Your task to perform on an android device: toggle show notifications on the lock screen Image 0: 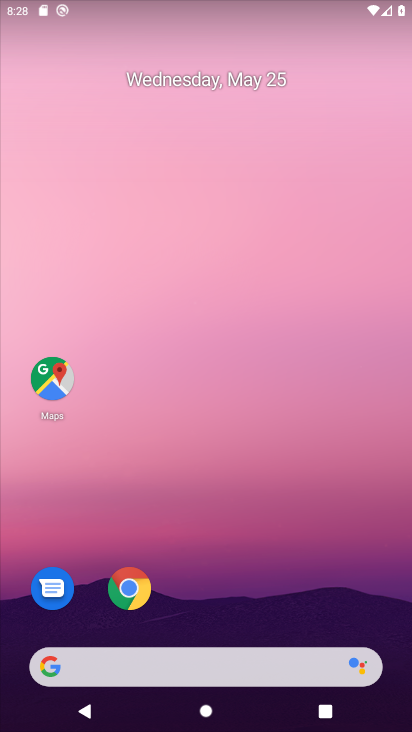
Step 0: drag from (394, 624) to (377, 269)
Your task to perform on an android device: toggle show notifications on the lock screen Image 1: 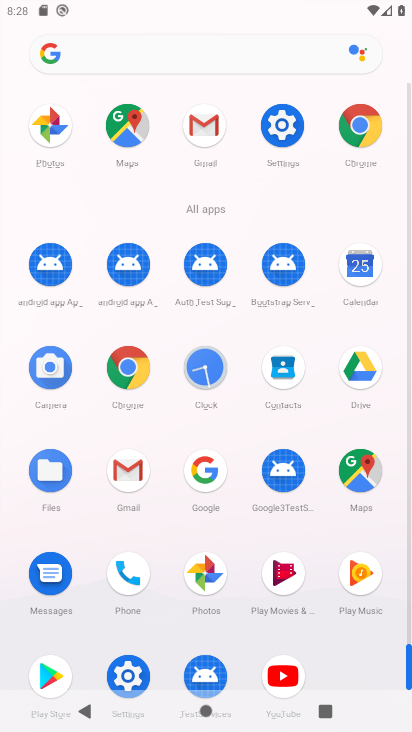
Step 1: drag from (334, 635) to (319, 443)
Your task to perform on an android device: toggle show notifications on the lock screen Image 2: 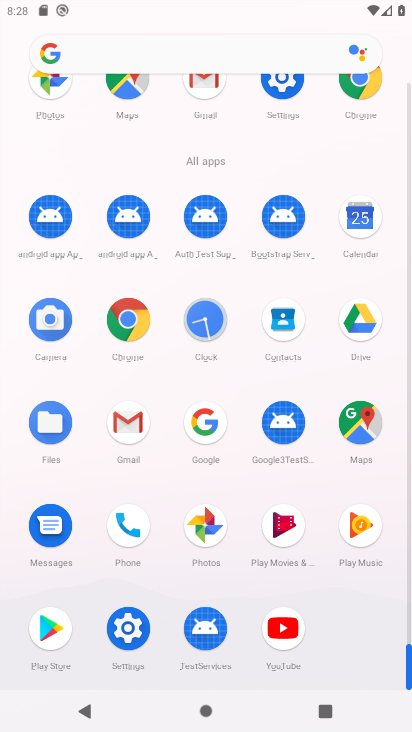
Step 2: click (131, 629)
Your task to perform on an android device: toggle show notifications on the lock screen Image 3: 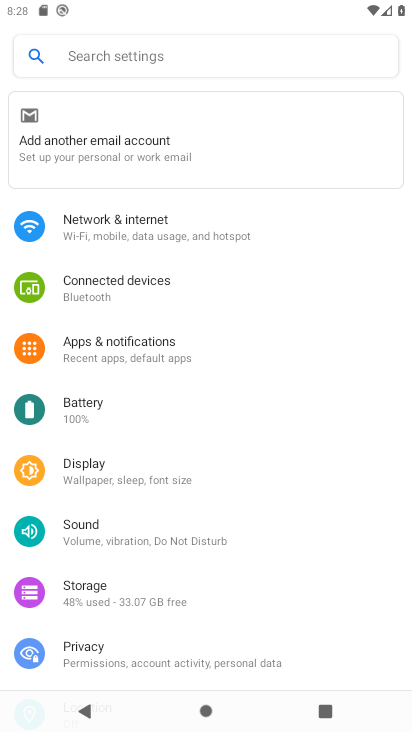
Step 3: drag from (329, 510) to (333, 382)
Your task to perform on an android device: toggle show notifications on the lock screen Image 4: 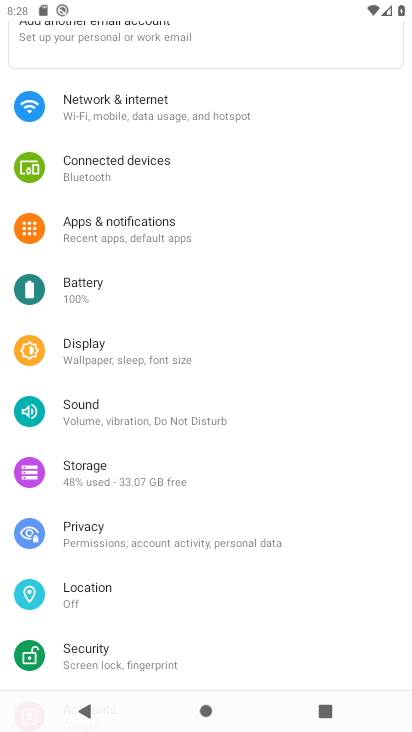
Step 4: drag from (370, 607) to (344, 378)
Your task to perform on an android device: toggle show notifications on the lock screen Image 5: 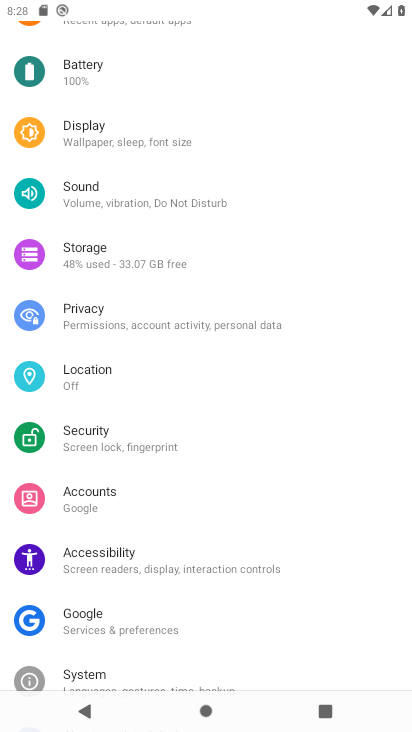
Step 5: drag from (345, 594) to (337, 419)
Your task to perform on an android device: toggle show notifications on the lock screen Image 6: 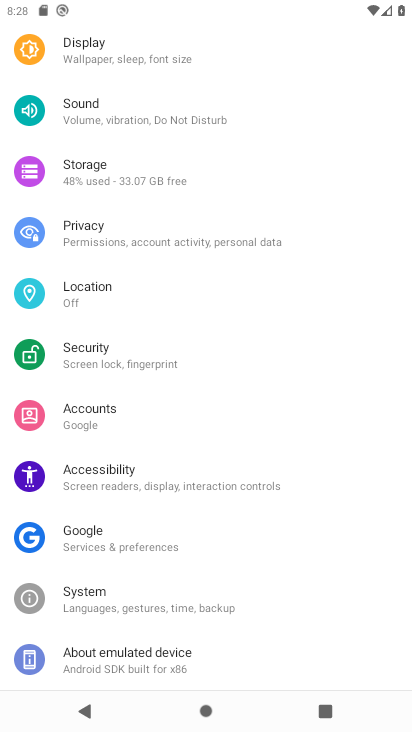
Step 6: drag from (332, 331) to (336, 405)
Your task to perform on an android device: toggle show notifications on the lock screen Image 7: 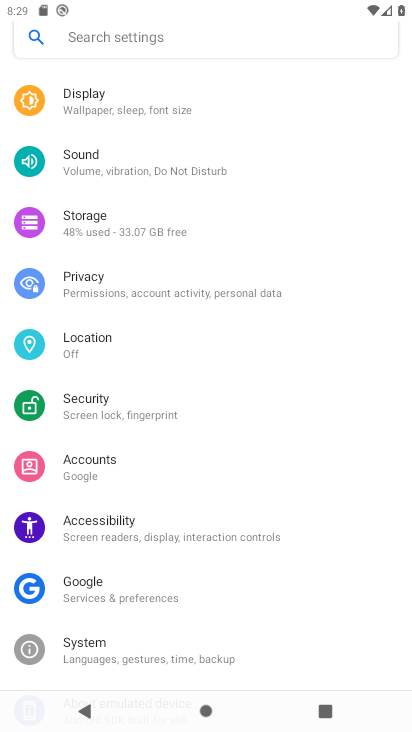
Step 7: drag from (336, 309) to (343, 399)
Your task to perform on an android device: toggle show notifications on the lock screen Image 8: 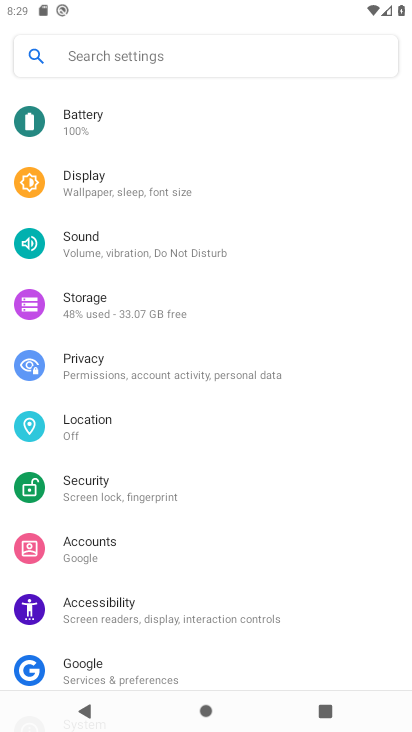
Step 8: drag from (350, 321) to (354, 411)
Your task to perform on an android device: toggle show notifications on the lock screen Image 9: 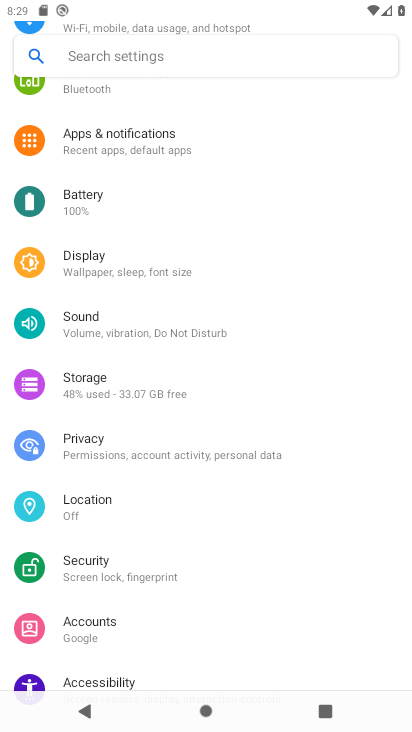
Step 9: drag from (353, 315) to (347, 411)
Your task to perform on an android device: toggle show notifications on the lock screen Image 10: 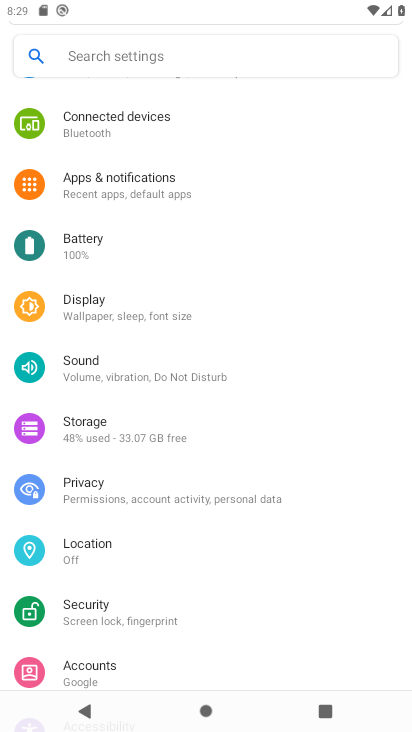
Step 10: drag from (348, 293) to (346, 394)
Your task to perform on an android device: toggle show notifications on the lock screen Image 11: 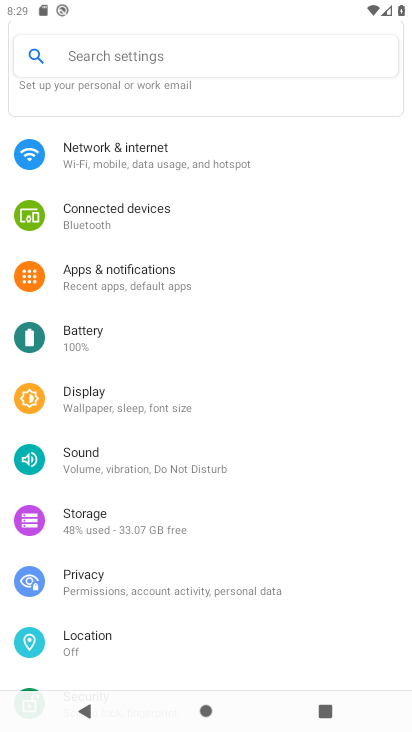
Step 11: drag from (337, 272) to (331, 409)
Your task to perform on an android device: toggle show notifications on the lock screen Image 12: 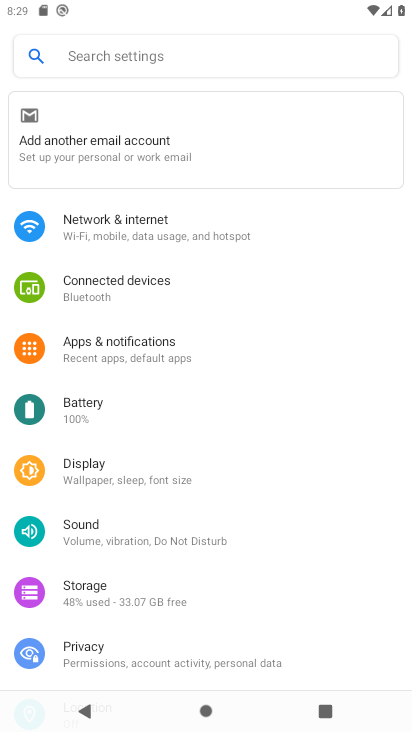
Step 12: drag from (322, 276) to (304, 454)
Your task to perform on an android device: toggle show notifications on the lock screen Image 13: 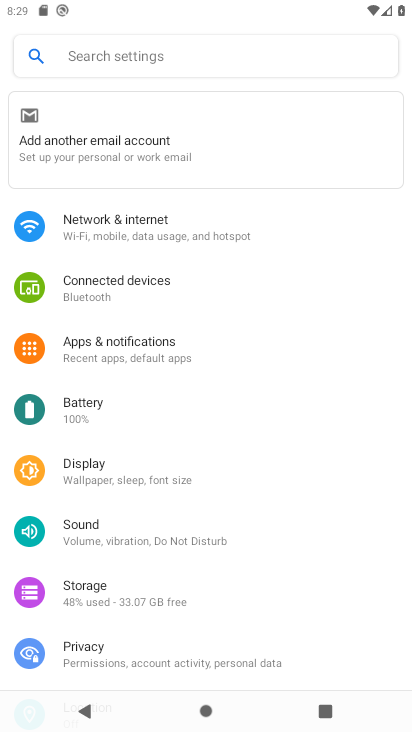
Step 13: click (173, 351)
Your task to perform on an android device: toggle show notifications on the lock screen Image 14: 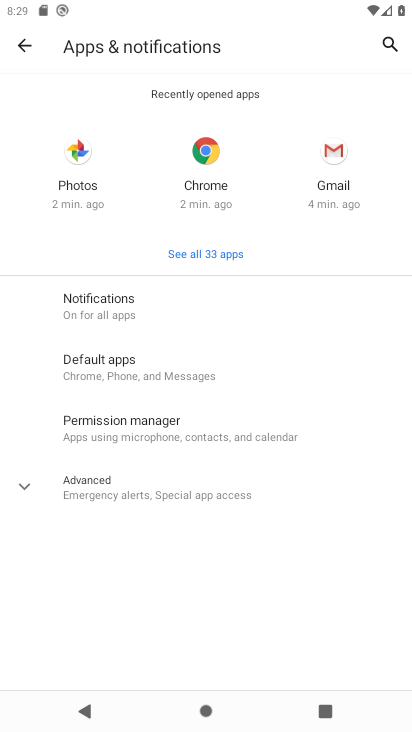
Step 14: click (141, 318)
Your task to perform on an android device: toggle show notifications on the lock screen Image 15: 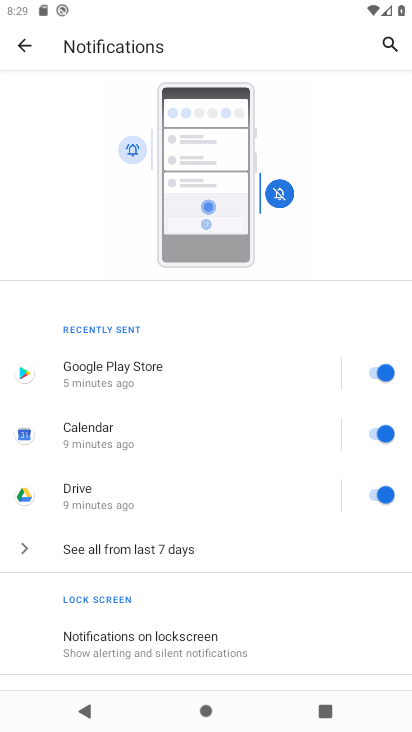
Step 15: drag from (237, 495) to (238, 415)
Your task to perform on an android device: toggle show notifications on the lock screen Image 16: 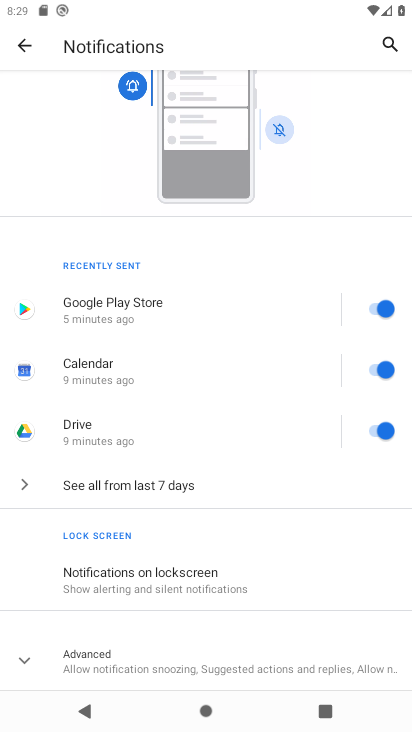
Step 16: drag from (269, 574) to (259, 466)
Your task to perform on an android device: toggle show notifications on the lock screen Image 17: 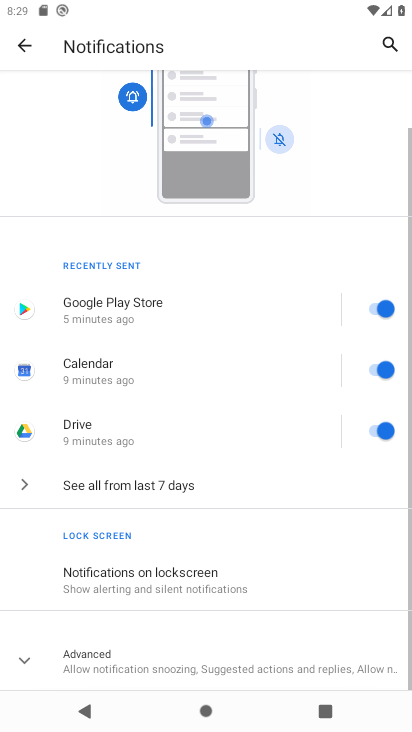
Step 17: click (248, 578)
Your task to perform on an android device: toggle show notifications on the lock screen Image 18: 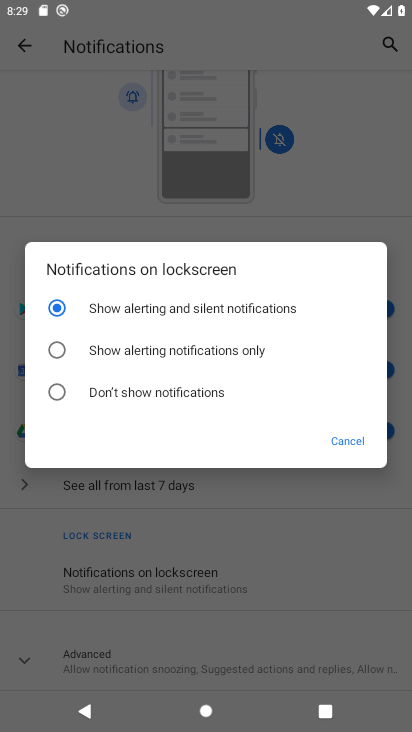
Step 18: click (121, 354)
Your task to perform on an android device: toggle show notifications on the lock screen Image 19: 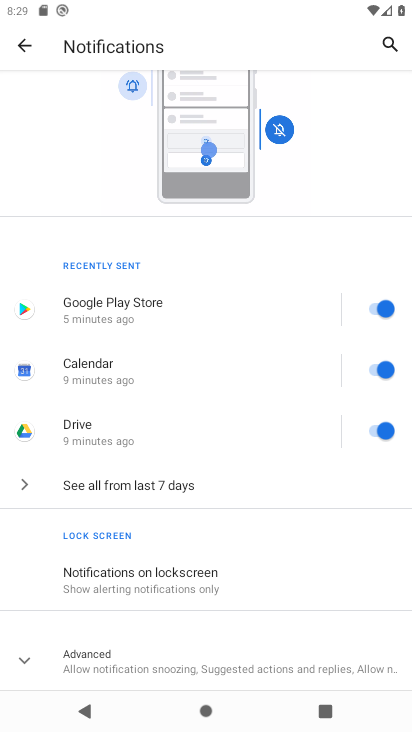
Step 19: task complete